Your task to perform on an android device: Open the calendar app, open the side menu, and click the "Day" option Image 0: 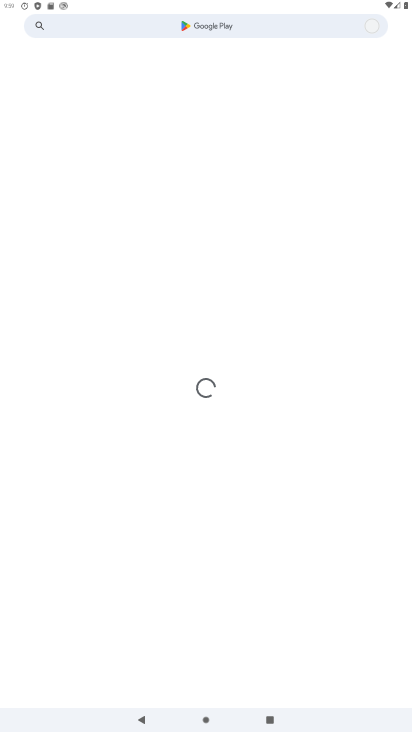
Step 0: press home button
Your task to perform on an android device: Open the calendar app, open the side menu, and click the "Day" option Image 1: 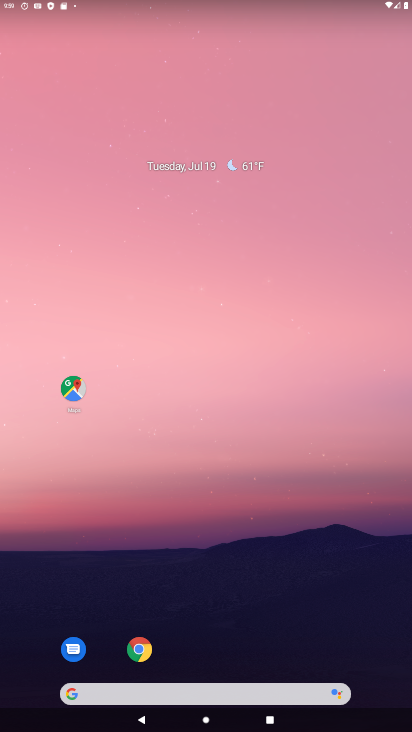
Step 1: drag from (220, 525) to (251, 0)
Your task to perform on an android device: Open the calendar app, open the side menu, and click the "Day" option Image 2: 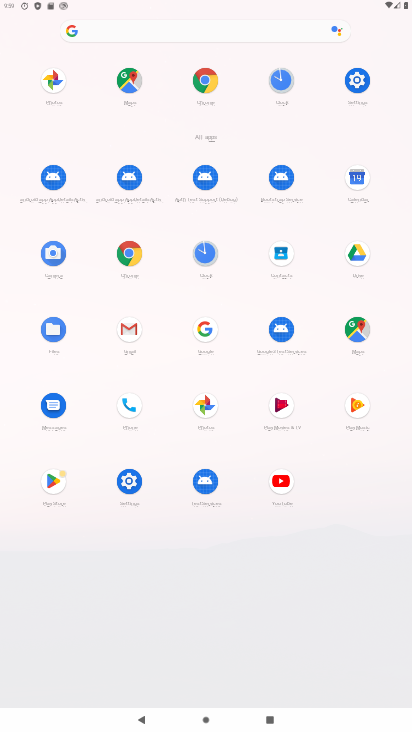
Step 2: click (365, 177)
Your task to perform on an android device: Open the calendar app, open the side menu, and click the "Day" option Image 3: 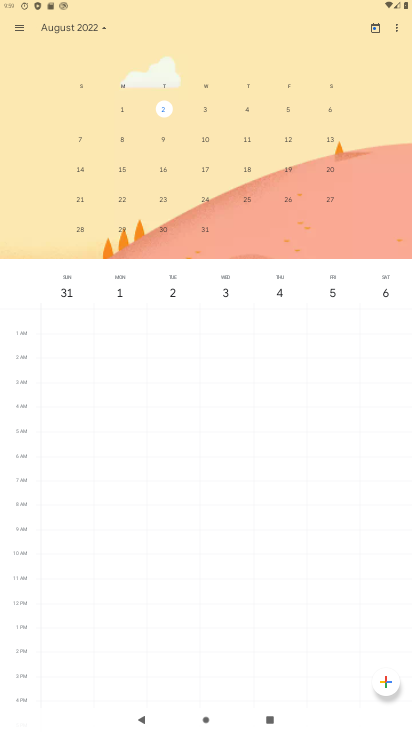
Step 3: click (17, 29)
Your task to perform on an android device: Open the calendar app, open the side menu, and click the "Day" option Image 4: 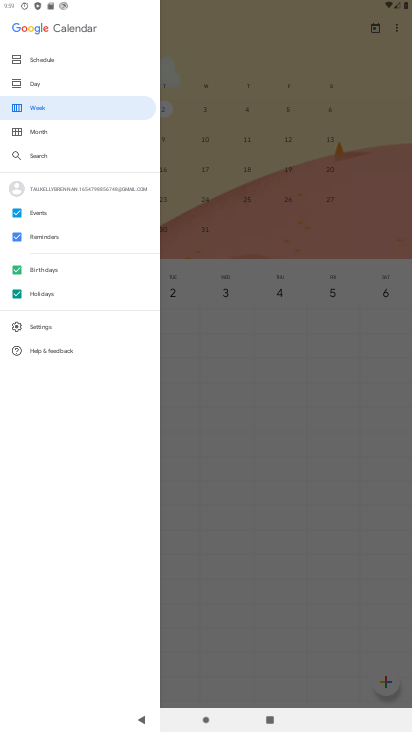
Step 4: click (39, 83)
Your task to perform on an android device: Open the calendar app, open the side menu, and click the "Day" option Image 5: 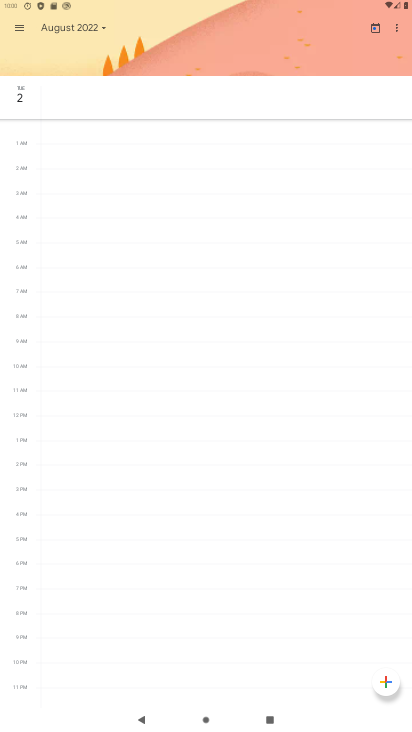
Step 5: task complete